Your task to perform on an android device: Go to internet settings Image 0: 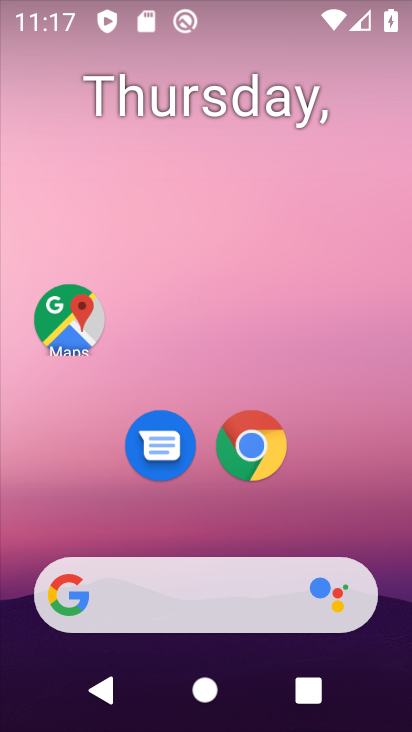
Step 0: drag from (114, 554) to (201, 10)
Your task to perform on an android device: Go to internet settings Image 1: 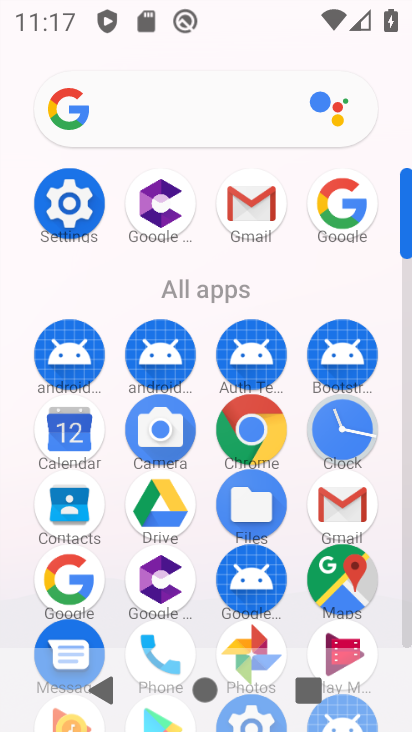
Step 1: drag from (186, 606) to (252, 365)
Your task to perform on an android device: Go to internet settings Image 2: 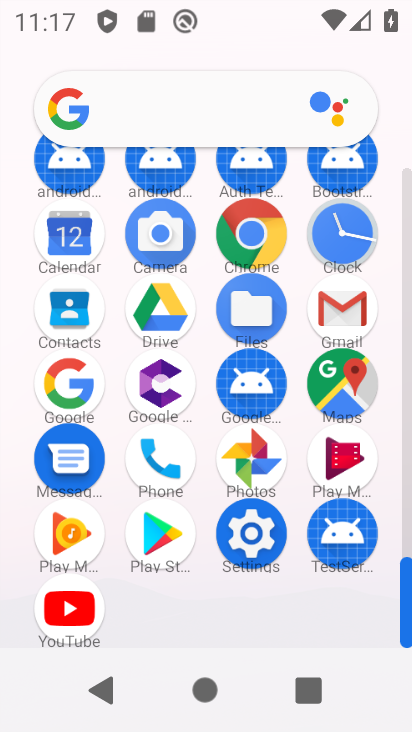
Step 2: click (261, 538)
Your task to perform on an android device: Go to internet settings Image 3: 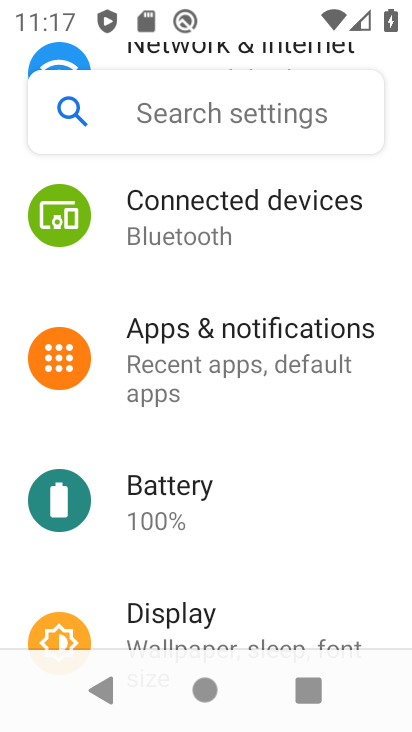
Step 3: drag from (227, 239) to (157, 670)
Your task to perform on an android device: Go to internet settings Image 4: 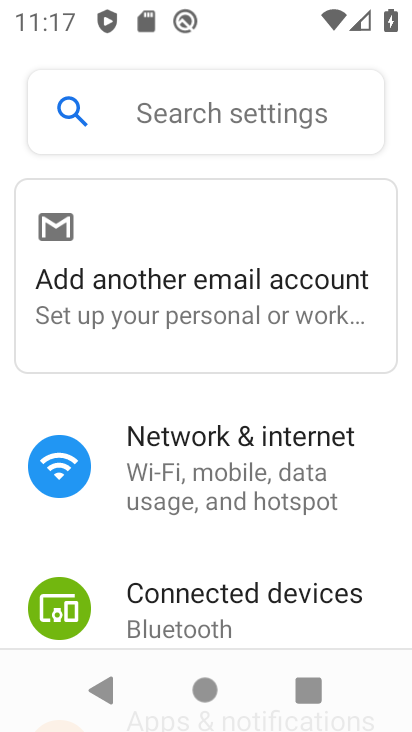
Step 4: click (174, 484)
Your task to perform on an android device: Go to internet settings Image 5: 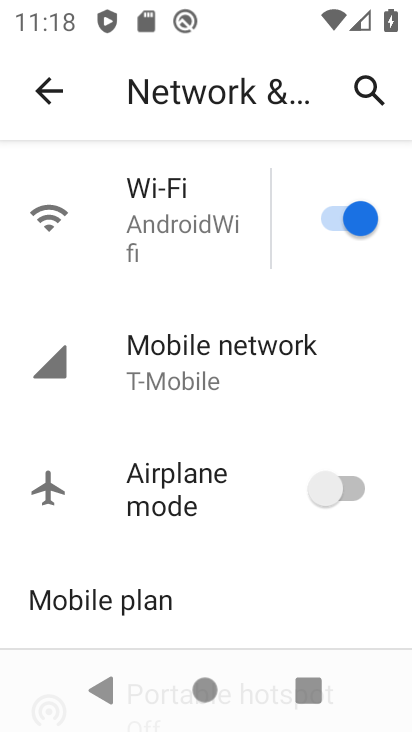
Step 5: click (212, 376)
Your task to perform on an android device: Go to internet settings Image 6: 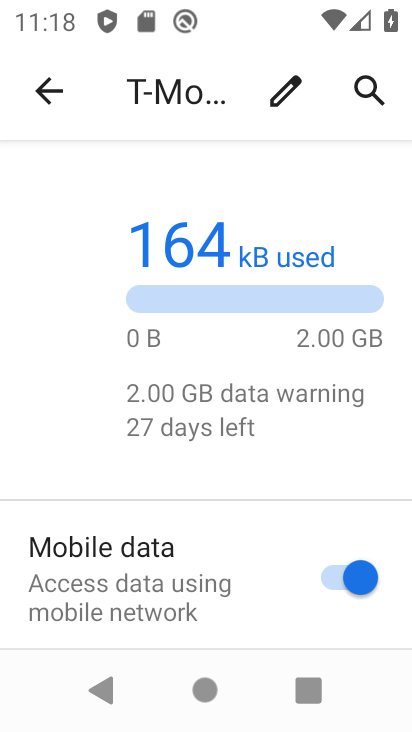
Step 6: task complete